Your task to perform on an android device: choose inbox layout in the gmail app Image 0: 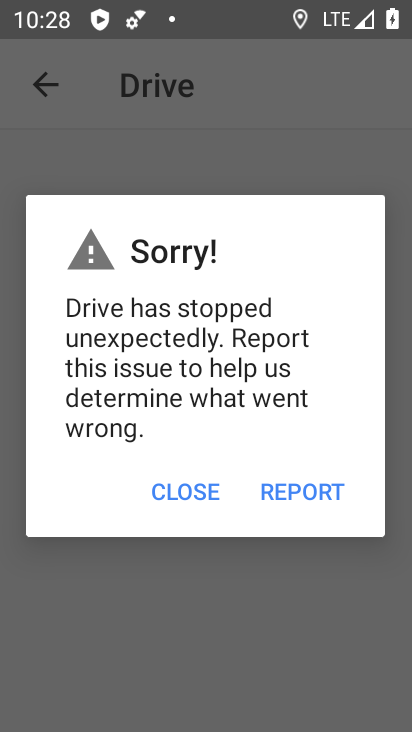
Step 0: press home button
Your task to perform on an android device: choose inbox layout in the gmail app Image 1: 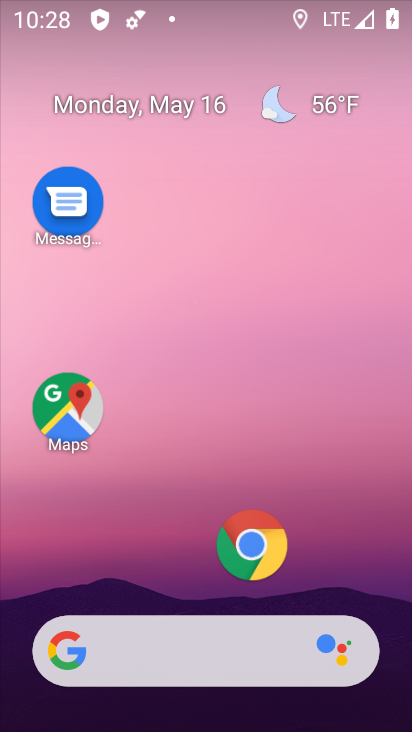
Step 1: drag from (191, 601) to (172, 47)
Your task to perform on an android device: choose inbox layout in the gmail app Image 2: 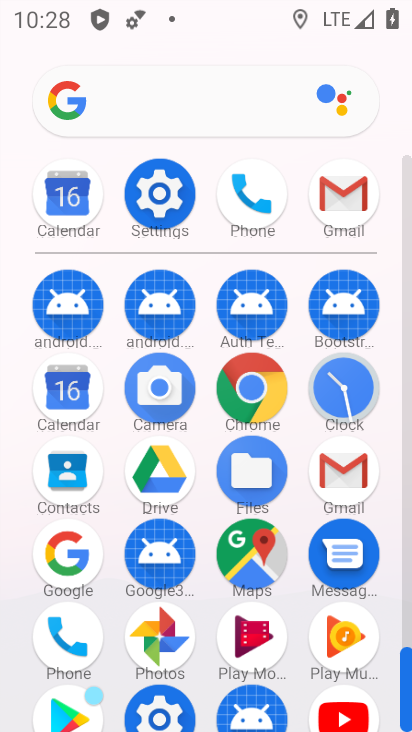
Step 2: click (366, 488)
Your task to perform on an android device: choose inbox layout in the gmail app Image 3: 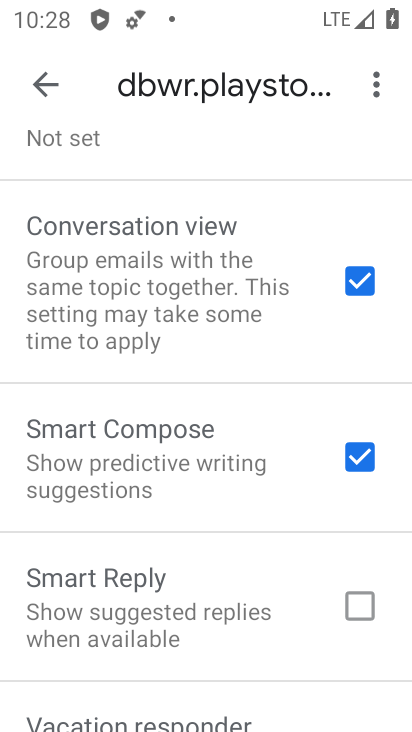
Step 3: drag from (153, 271) to (187, 727)
Your task to perform on an android device: choose inbox layout in the gmail app Image 4: 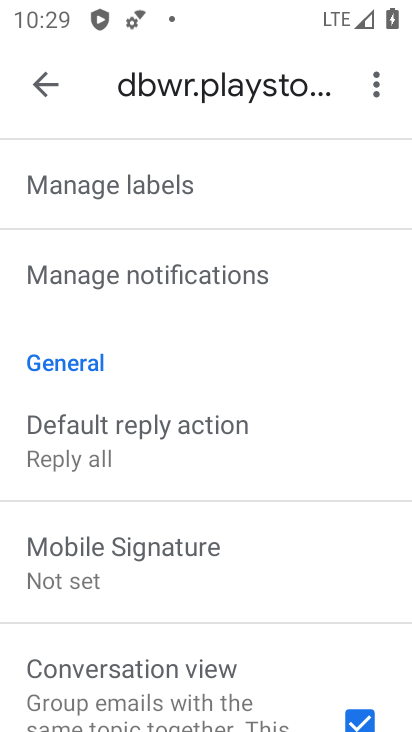
Step 4: drag from (148, 276) to (189, 730)
Your task to perform on an android device: choose inbox layout in the gmail app Image 5: 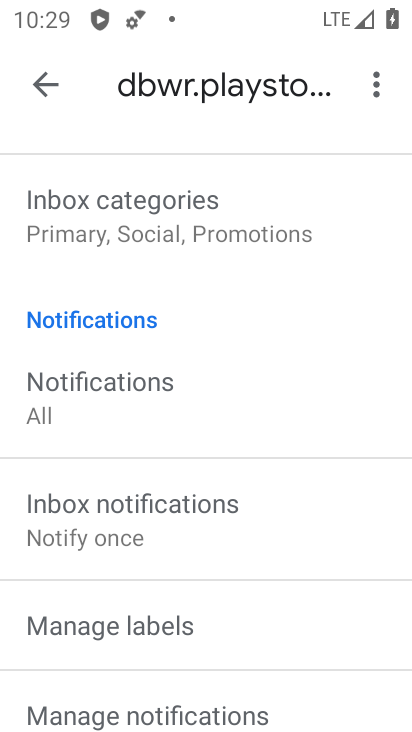
Step 5: drag from (135, 279) to (193, 692)
Your task to perform on an android device: choose inbox layout in the gmail app Image 6: 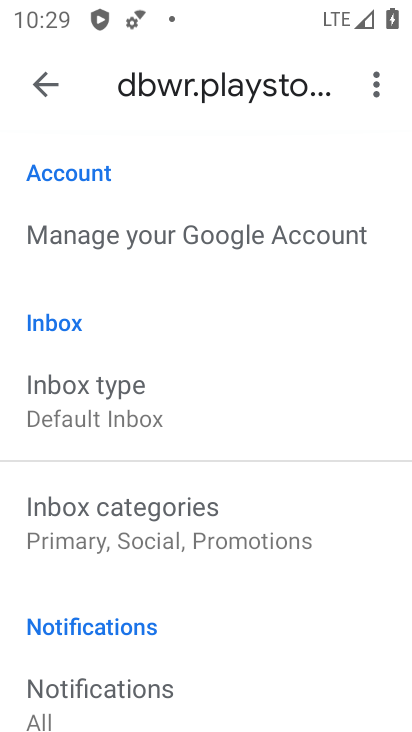
Step 6: click (171, 447)
Your task to perform on an android device: choose inbox layout in the gmail app Image 7: 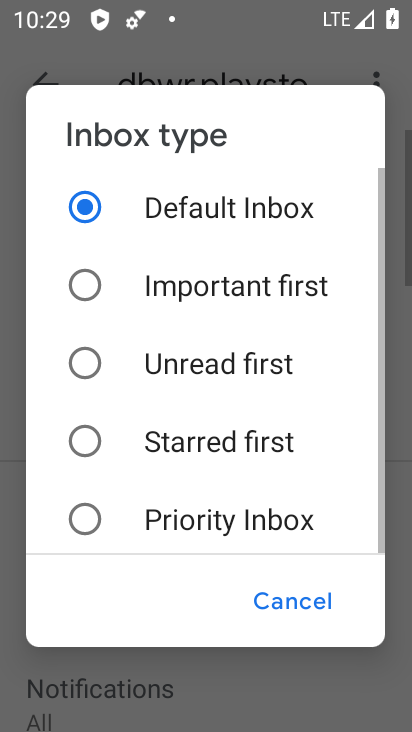
Step 7: click (135, 512)
Your task to perform on an android device: choose inbox layout in the gmail app Image 8: 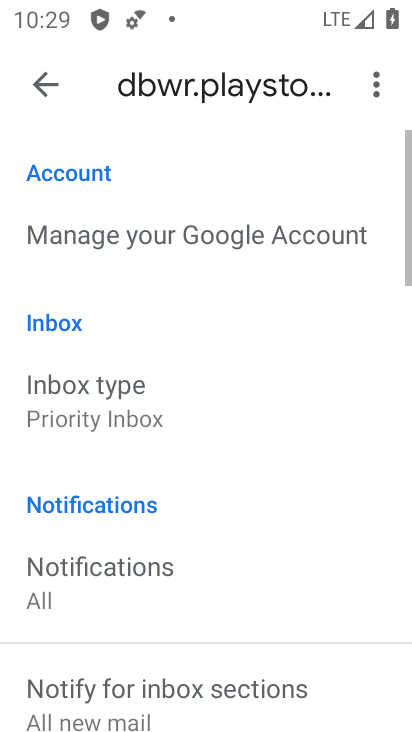
Step 8: click (52, 90)
Your task to perform on an android device: choose inbox layout in the gmail app Image 9: 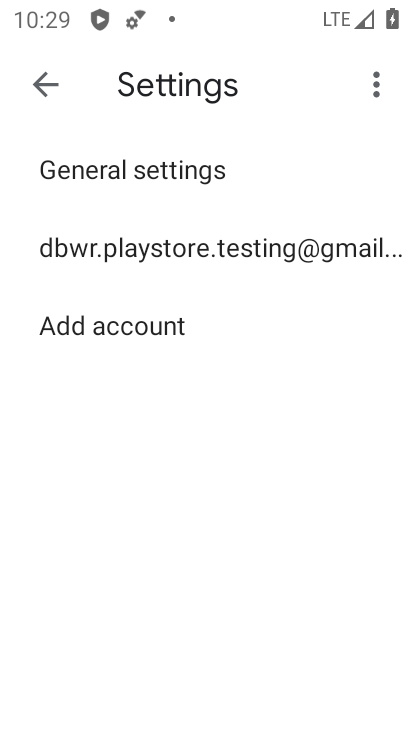
Step 9: click (42, 94)
Your task to perform on an android device: choose inbox layout in the gmail app Image 10: 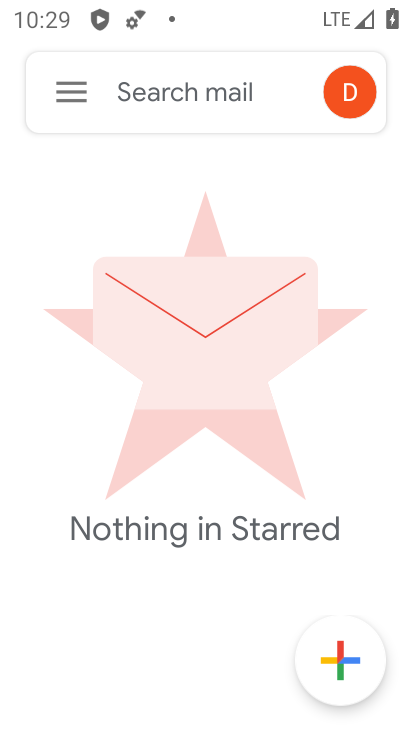
Step 10: click (76, 89)
Your task to perform on an android device: choose inbox layout in the gmail app Image 11: 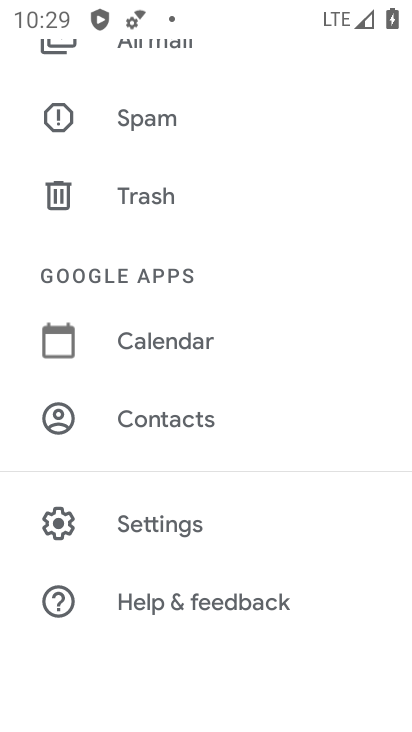
Step 11: drag from (143, 519) to (146, 677)
Your task to perform on an android device: choose inbox layout in the gmail app Image 12: 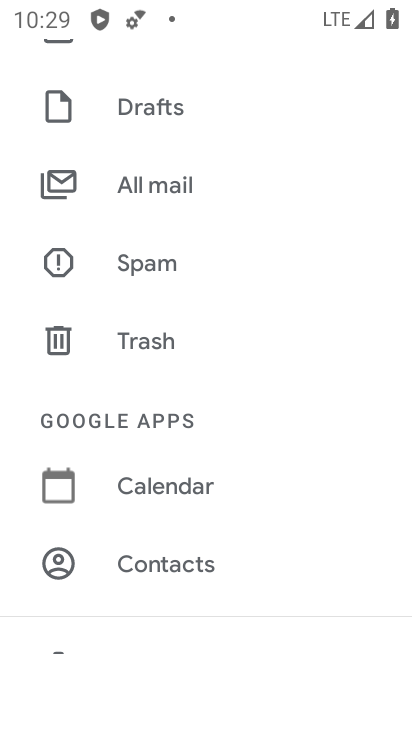
Step 12: drag from (149, 100) to (202, 611)
Your task to perform on an android device: choose inbox layout in the gmail app Image 13: 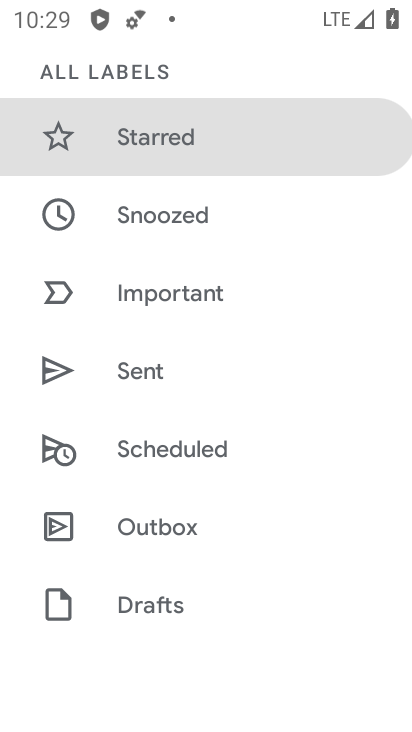
Step 13: drag from (163, 174) to (141, 731)
Your task to perform on an android device: choose inbox layout in the gmail app Image 14: 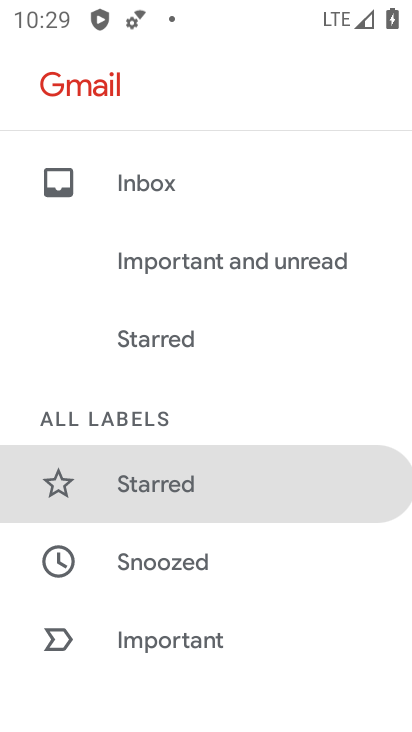
Step 14: click (147, 195)
Your task to perform on an android device: choose inbox layout in the gmail app Image 15: 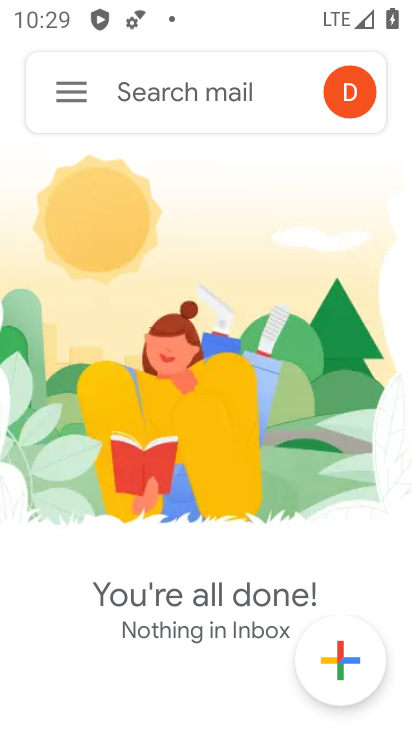
Step 15: task complete